Your task to perform on an android device: Open Yahoo.com Image 0: 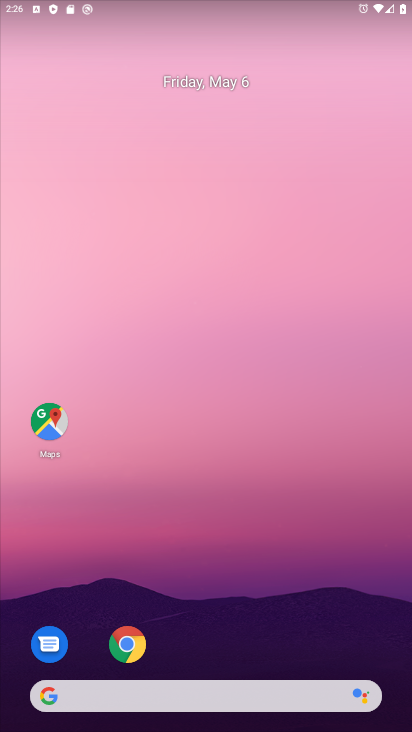
Step 0: click (190, 709)
Your task to perform on an android device: Open Yahoo.com Image 1: 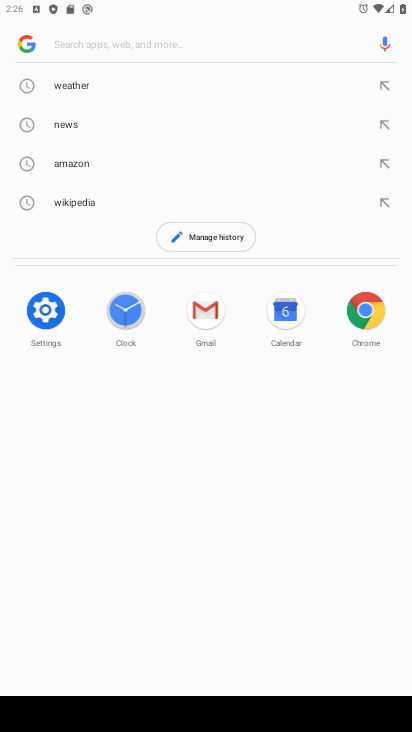
Step 1: type "yahoo.com"
Your task to perform on an android device: Open Yahoo.com Image 2: 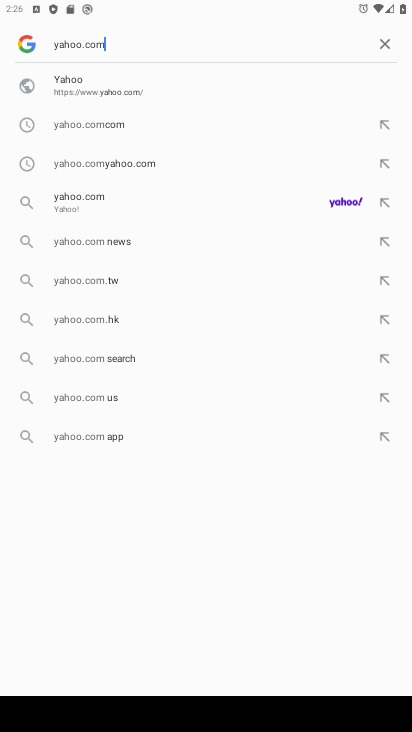
Step 2: click (128, 81)
Your task to perform on an android device: Open Yahoo.com Image 3: 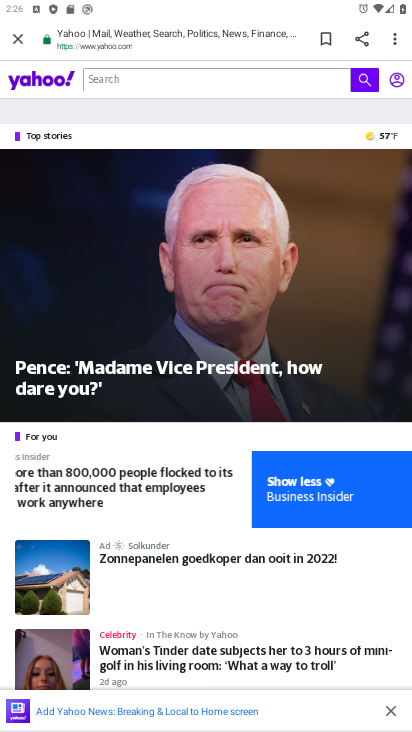
Step 3: task complete